Your task to perform on an android device: What's the weather going to be tomorrow? Image 0: 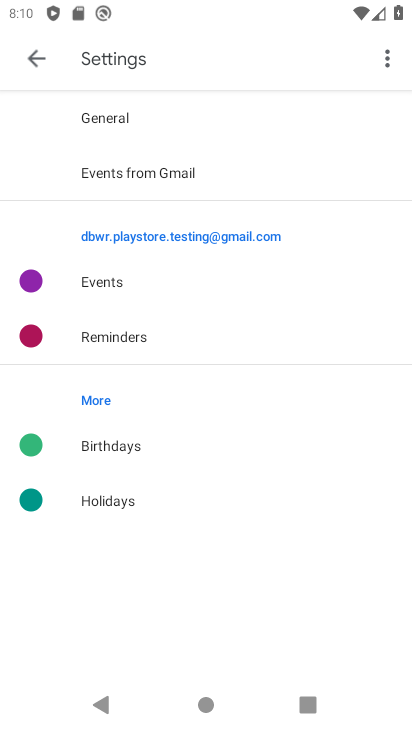
Step 0: press home button
Your task to perform on an android device: What's the weather going to be tomorrow? Image 1: 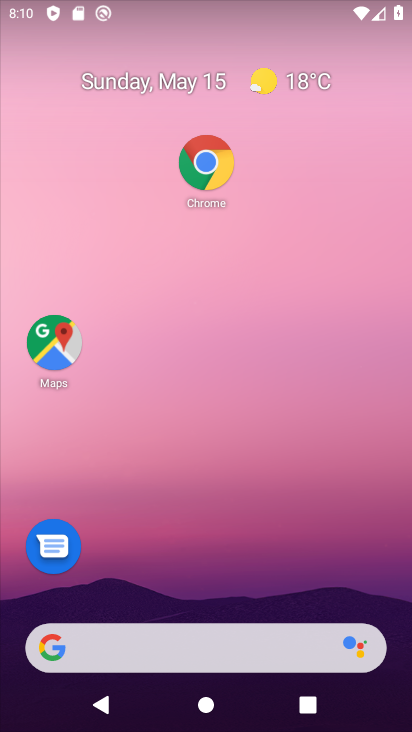
Step 1: drag from (238, 489) to (317, 132)
Your task to perform on an android device: What's the weather going to be tomorrow? Image 2: 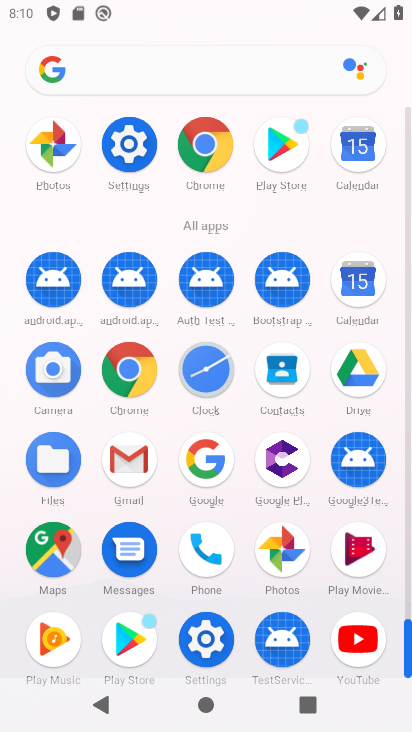
Step 2: click (203, 142)
Your task to perform on an android device: What's the weather going to be tomorrow? Image 3: 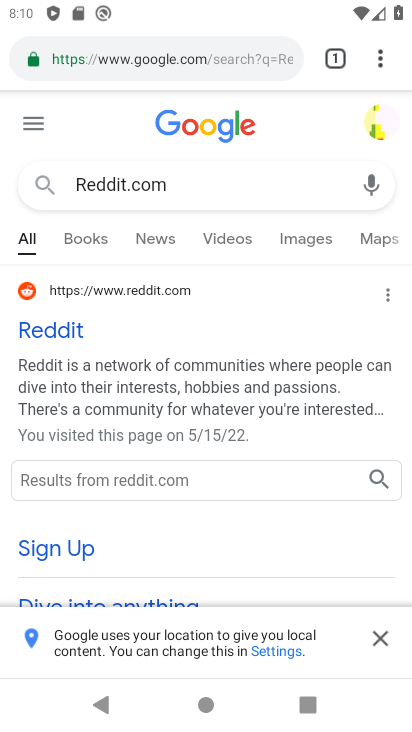
Step 3: click (369, 56)
Your task to perform on an android device: What's the weather going to be tomorrow? Image 4: 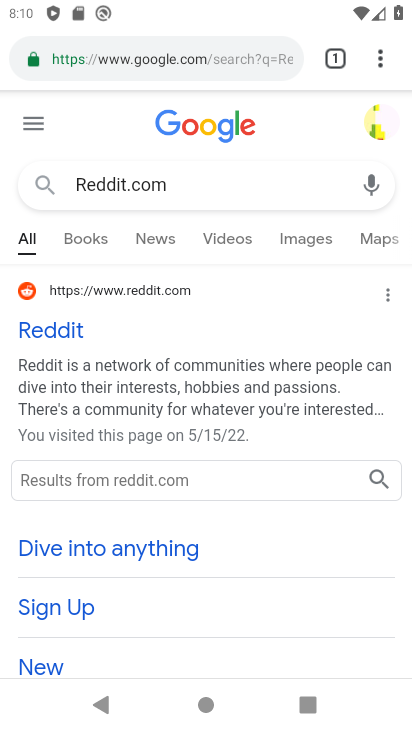
Step 4: click (369, 58)
Your task to perform on an android device: What's the weather going to be tomorrow? Image 5: 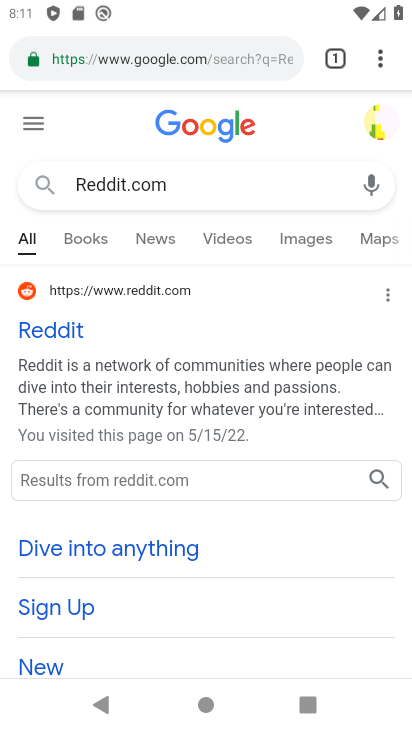
Step 5: click (398, 53)
Your task to perform on an android device: What's the weather going to be tomorrow? Image 6: 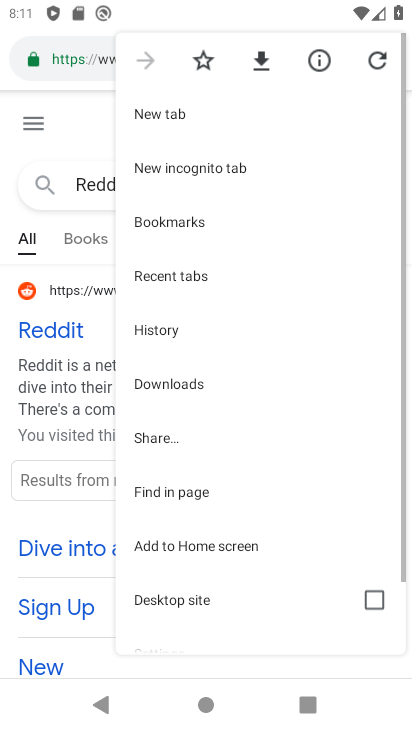
Step 6: click (150, 110)
Your task to perform on an android device: What's the weather going to be tomorrow? Image 7: 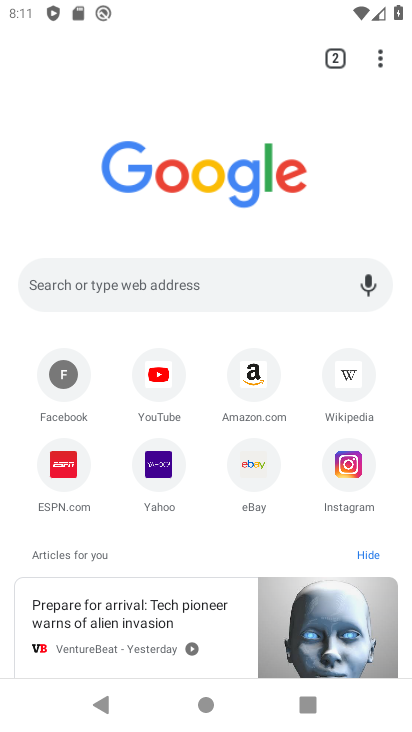
Step 7: click (243, 277)
Your task to perform on an android device: What's the weather going to be tomorrow? Image 8: 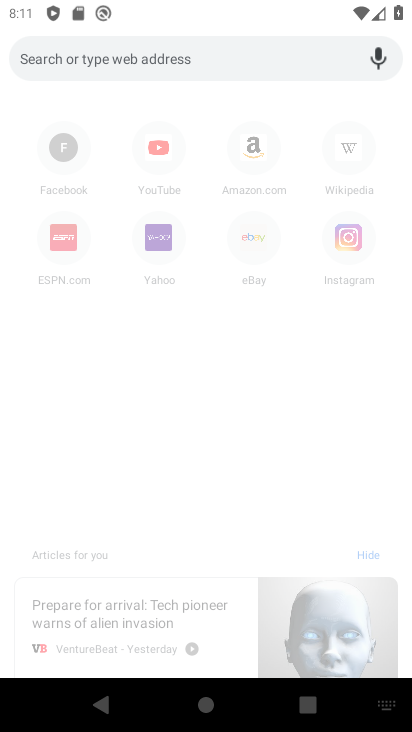
Step 8: type "What's the weather going to be tomorrow?"
Your task to perform on an android device: What's the weather going to be tomorrow? Image 9: 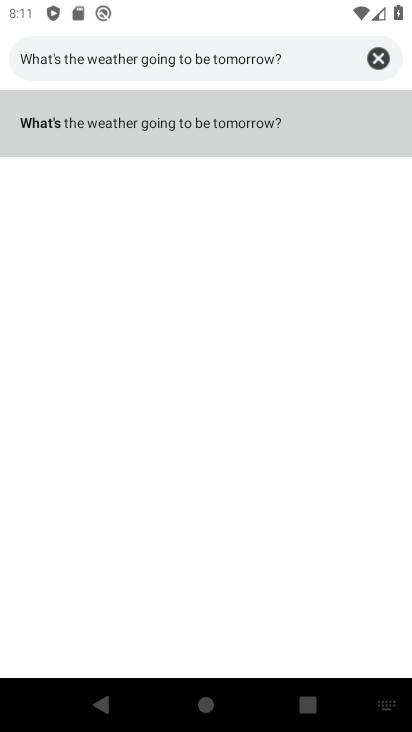
Step 9: click (183, 124)
Your task to perform on an android device: What's the weather going to be tomorrow? Image 10: 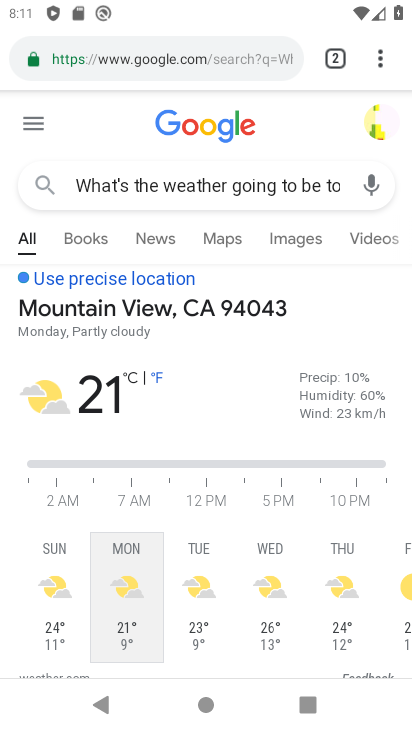
Step 10: task complete